Your task to perform on an android device: clear history in the chrome app Image 0: 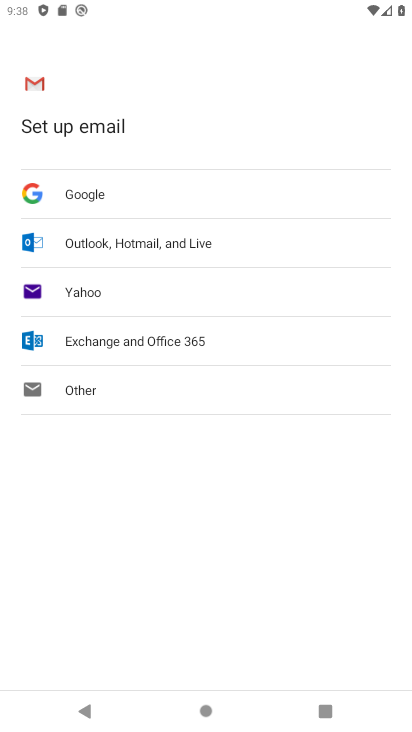
Step 0: press back button
Your task to perform on an android device: clear history in the chrome app Image 1: 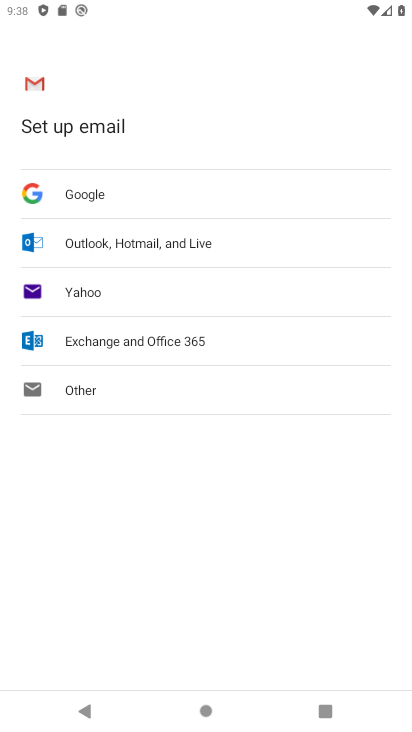
Step 1: press back button
Your task to perform on an android device: clear history in the chrome app Image 2: 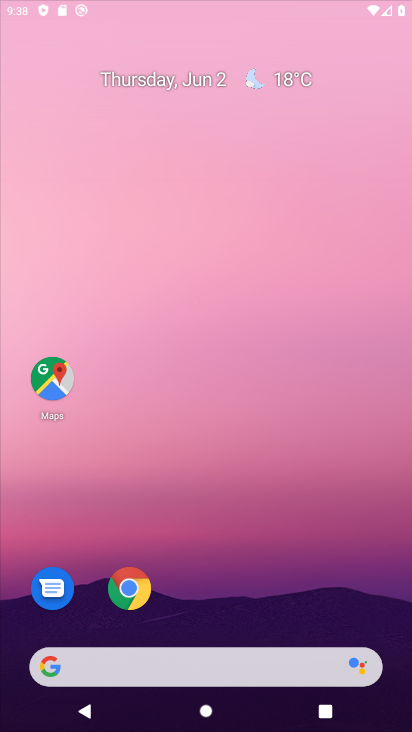
Step 2: press back button
Your task to perform on an android device: clear history in the chrome app Image 3: 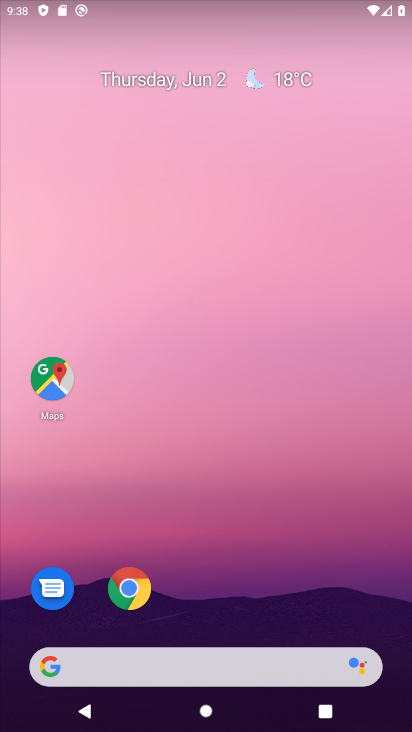
Step 3: drag from (287, 691) to (120, 93)
Your task to perform on an android device: clear history in the chrome app Image 4: 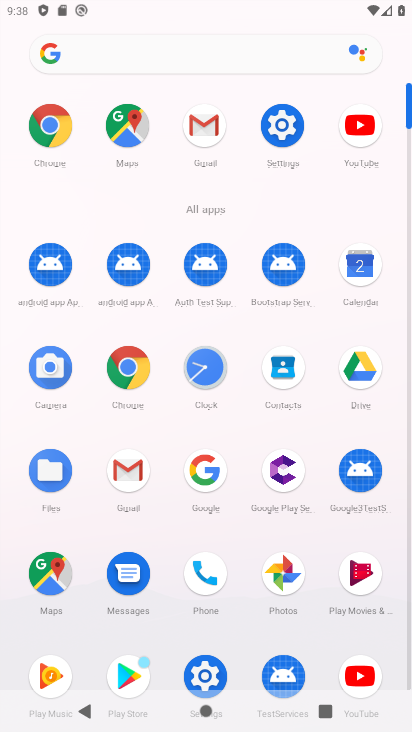
Step 4: click (43, 132)
Your task to perform on an android device: clear history in the chrome app Image 5: 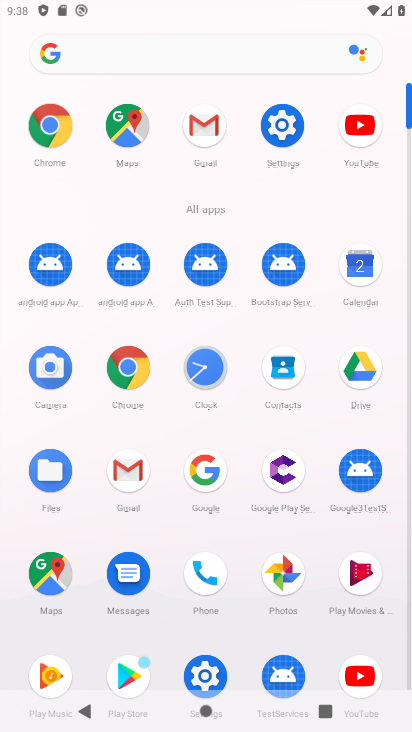
Step 5: click (44, 132)
Your task to perform on an android device: clear history in the chrome app Image 6: 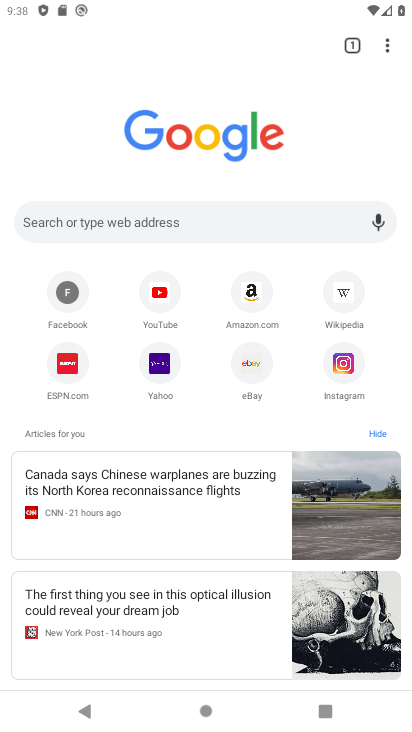
Step 6: drag from (386, 45) to (220, 389)
Your task to perform on an android device: clear history in the chrome app Image 7: 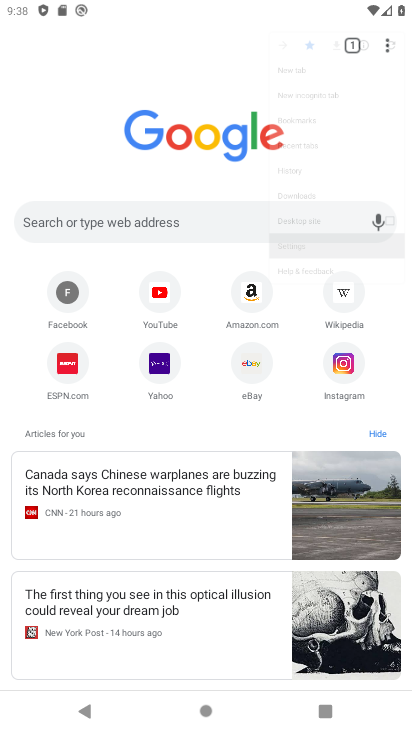
Step 7: click (219, 390)
Your task to perform on an android device: clear history in the chrome app Image 8: 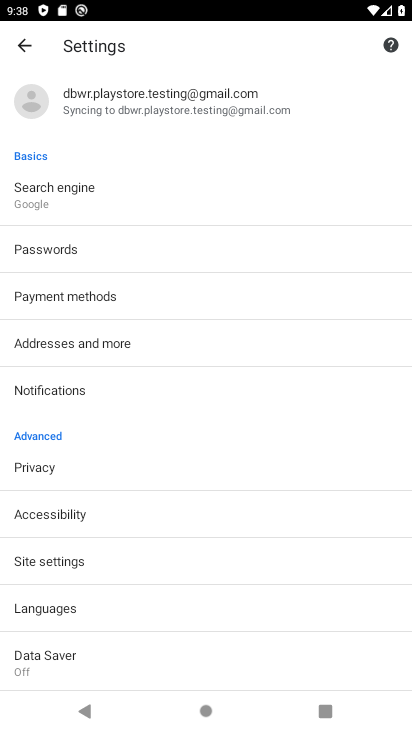
Step 8: click (51, 559)
Your task to perform on an android device: clear history in the chrome app Image 9: 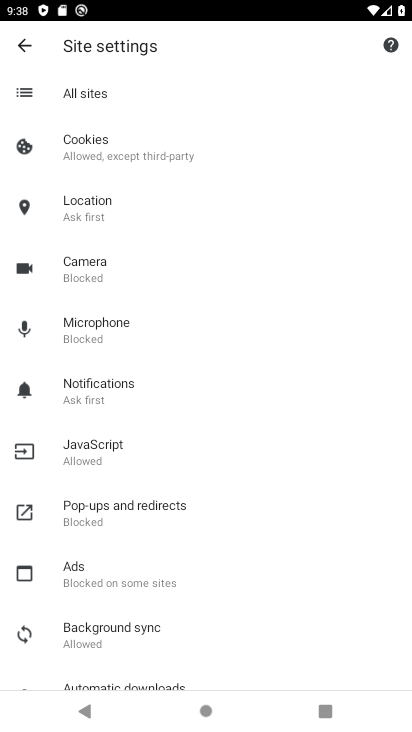
Step 9: drag from (122, 413) to (175, 128)
Your task to perform on an android device: clear history in the chrome app Image 10: 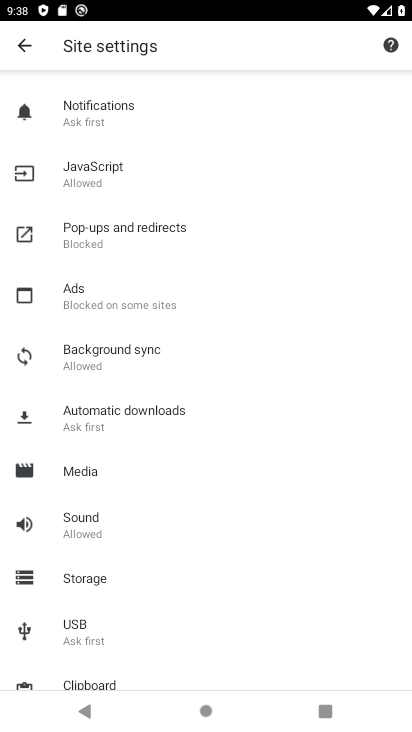
Step 10: drag from (110, 219) to (157, 571)
Your task to perform on an android device: clear history in the chrome app Image 11: 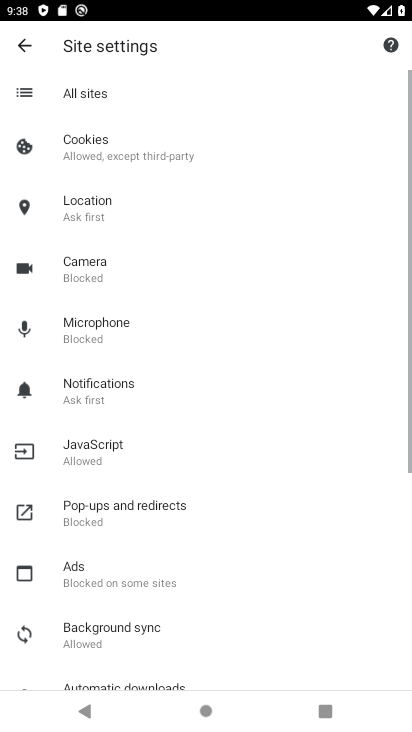
Step 11: drag from (156, 218) to (178, 485)
Your task to perform on an android device: clear history in the chrome app Image 12: 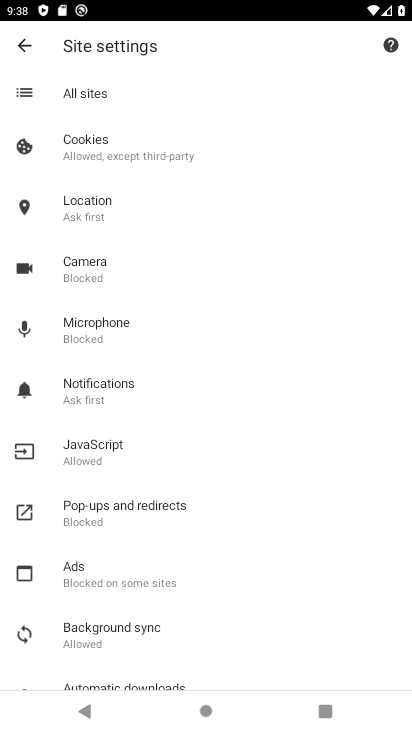
Step 12: click (19, 55)
Your task to perform on an android device: clear history in the chrome app Image 13: 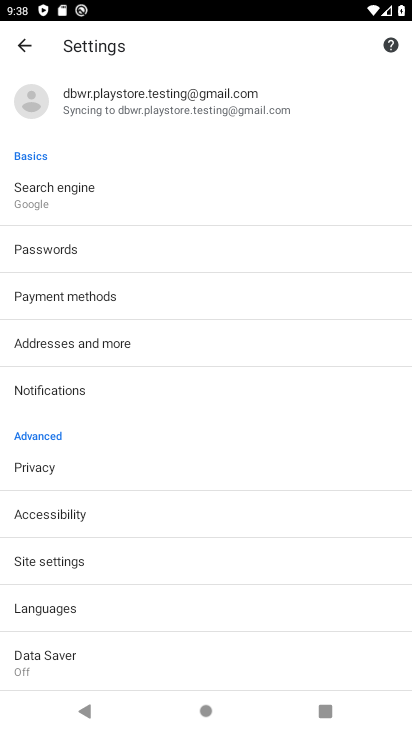
Step 13: click (30, 56)
Your task to perform on an android device: clear history in the chrome app Image 14: 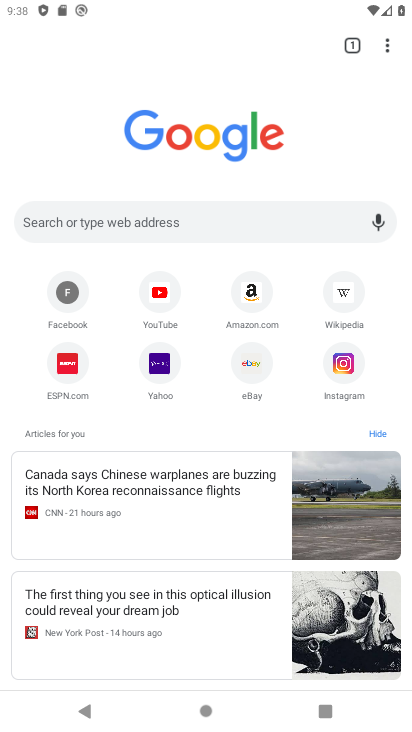
Step 14: click (385, 40)
Your task to perform on an android device: clear history in the chrome app Image 15: 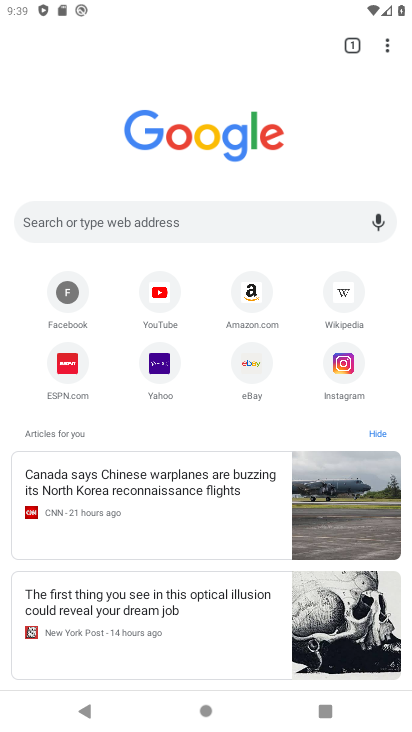
Step 15: click (389, 48)
Your task to perform on an android device: clear history in the chrome app Image 16: 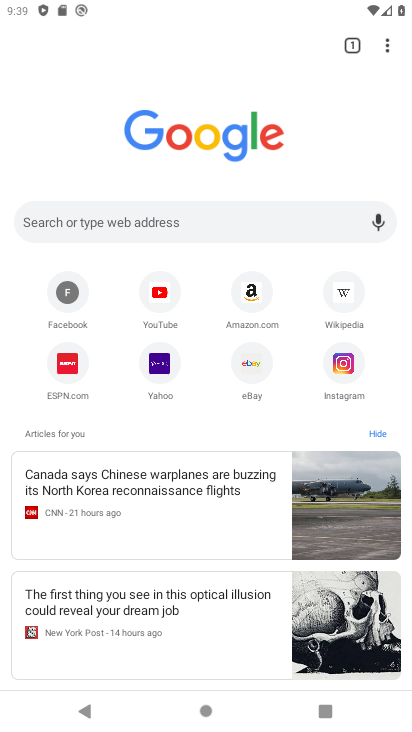
Step 16: drag from (381, 51) to (204, 264)
Your task to perform on an android device: clear history in the chrome app Image 17: 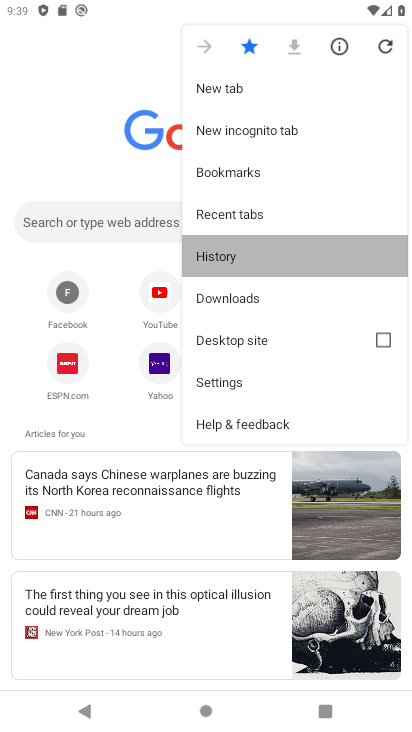
Step 17: click (204, 264)
Your task to perform on an android device: clear history in the chrome app Image 18: 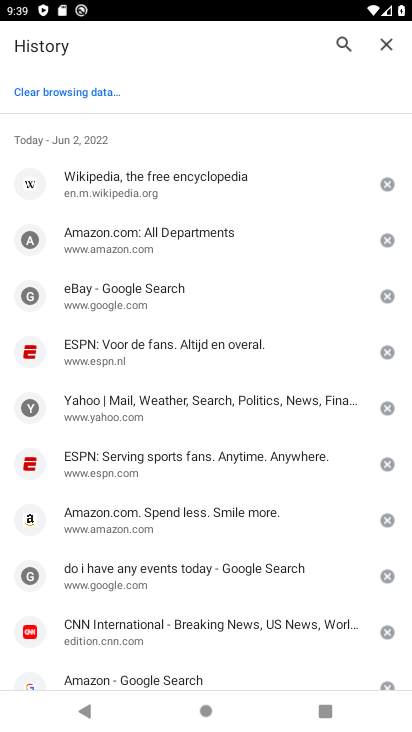
Step 18: click (87, 80)
Your task to perform on an android device: clear history in the chrome app Image 19: 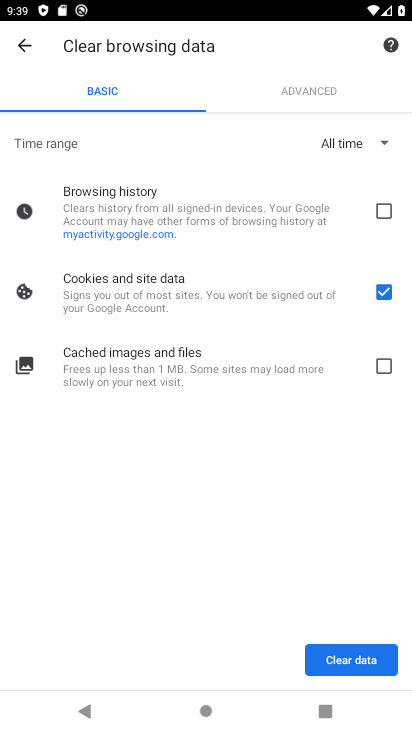
Step 19: click (354, 656)
Your task to perform on an android device: clear history in the chrome app Image 20: 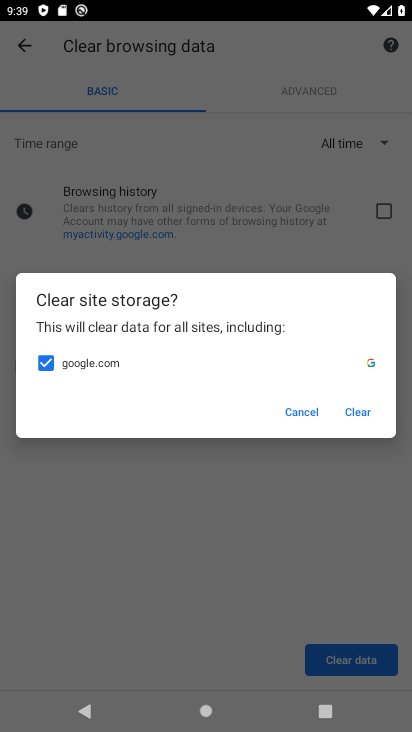
Step 20: task complete